Your task to perform on an android device: turn vacation reply on in the gmail app Image 0: 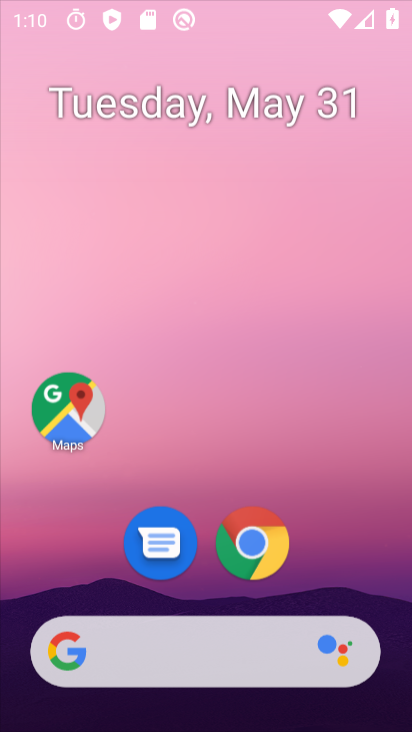
Step 0: press back button
Your task to perform on an android device: turn vacation reply on in the gmail app Image 1: 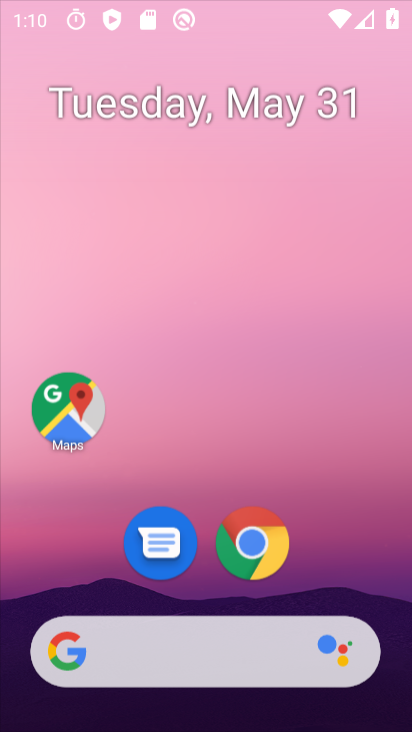
Step 1: click (66, 405)
Your task to perform on an android device: turn vacation reply on in the gmail app Image 2: 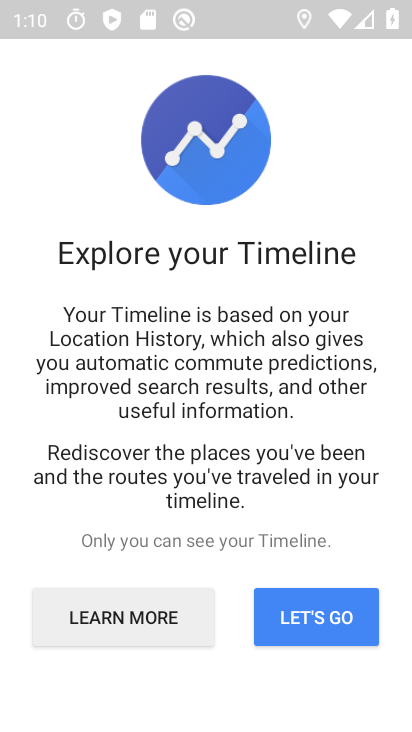
Step 2: press back button
Your task to perform on an android device: turn vacation reply on in the gmail app Image 3: 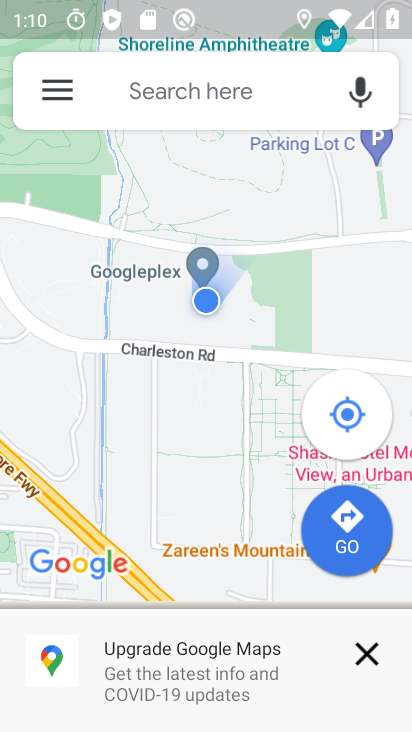
Step 3: press back button
Your task to perform on an android device: turn vacation reply on in the gmail app Image 4: 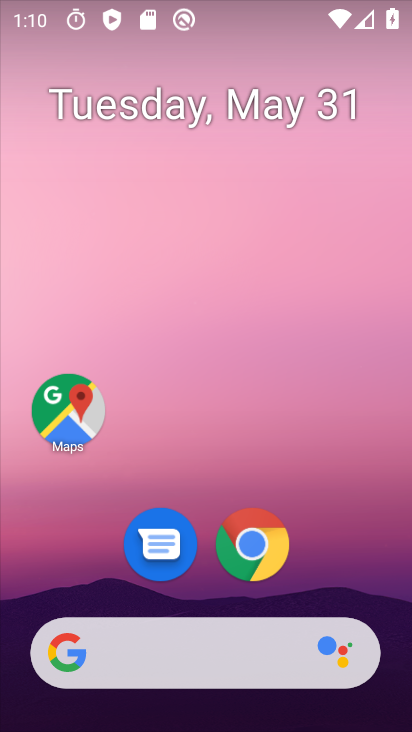
Step 4: drag from (278, 443) to (273, 43)
Your task to perform on an android device: turn vacation reply on in the gmail app Image 5: 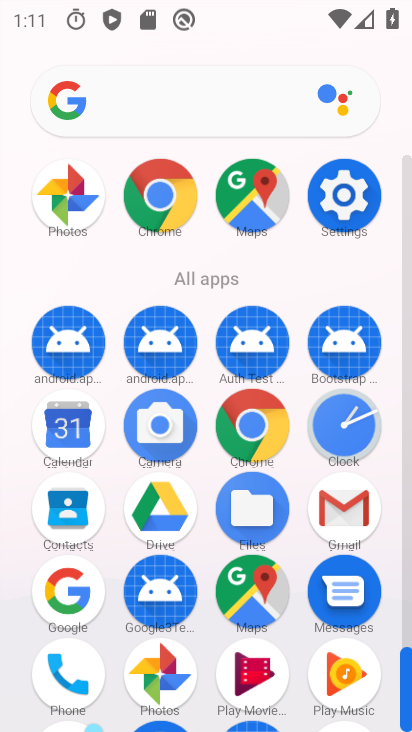
Step 5: click (335, 506)
Your task to perform on an android device: turn vacation reply on in the gmail app Image 6: 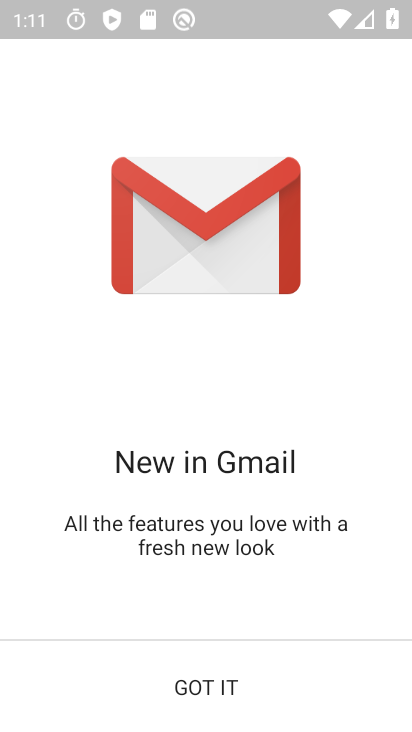
Step 6: click (181, 670)
Your task to perform on an android device: turn vacation reply on in the gmail app Image 7: 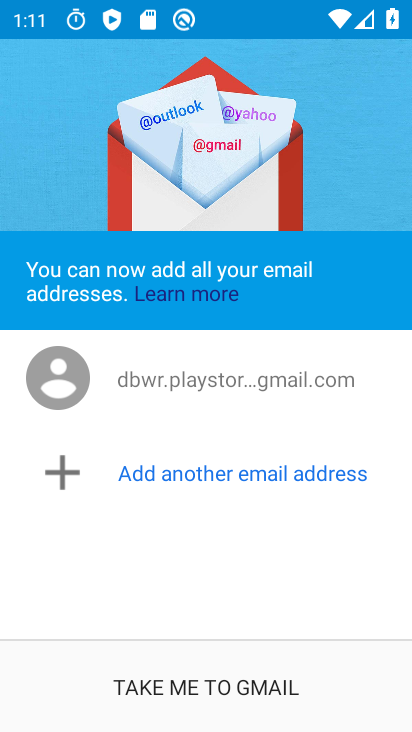
Step 7: click (215, 687)
Your task to perform on an android device: turn vacation reply on in the gmail app Image 8: 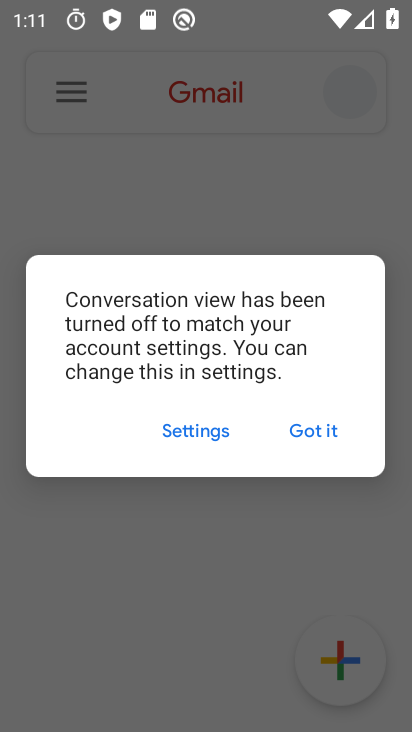
Step 8: click (308, 438)
Your task to perform on an android device: turn vacation reply on in the gmail app Image 9: 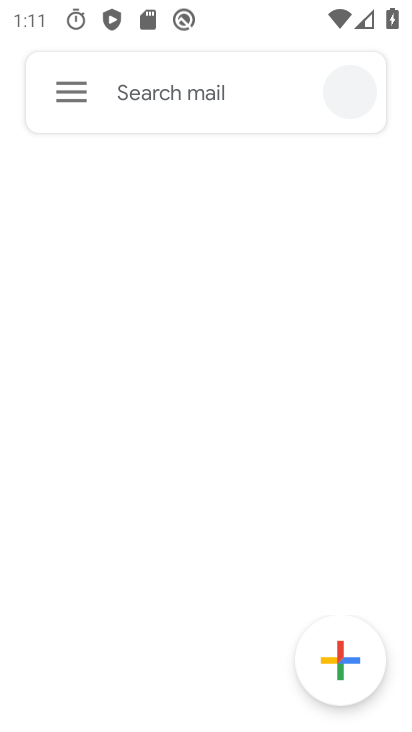
Step 9: click (71, 94)
Your task to perform on an android device: turn vacation reply on in the gmail app Image 10: 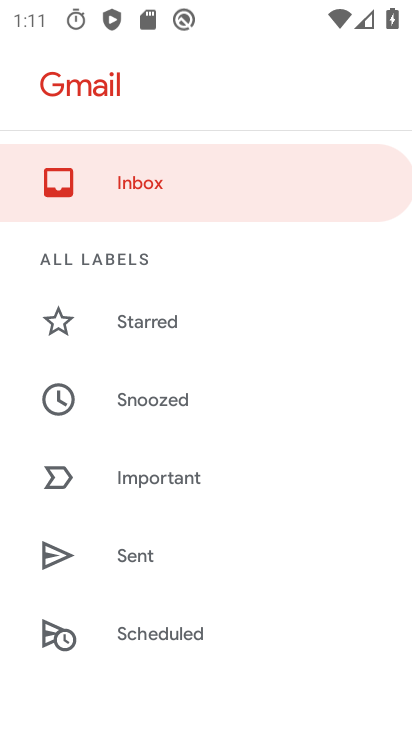
Step 10: drag from (168, 660) to (194, 154)
Your task to perform on an android device: turn vacation reply on in the gmail app Image 11: 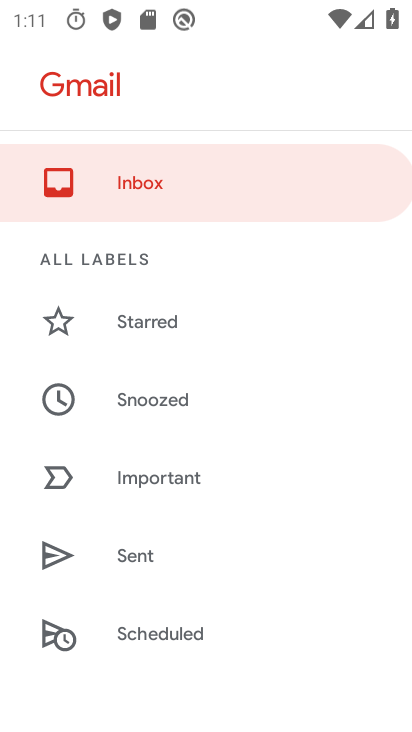
Step 11: drag from (189, 530) to (185, 84)
Your task to perform on an android device: turn vacation reply on in the gmail app Image 12: 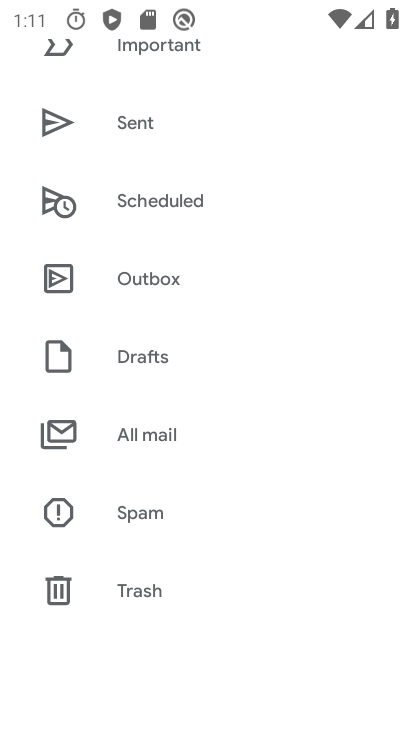
Step 12: drag from (204, 480) to (258, 44)
Your task to perform on an android device: turn vacation reply on in the gmail app Image 13: 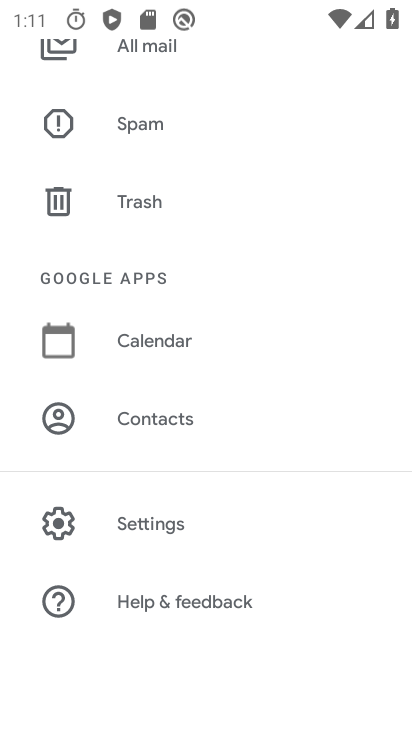
Step 13: click (148, 527)
Your task to perform on an android device: turn vacation reply on in the gmail app Image 14: 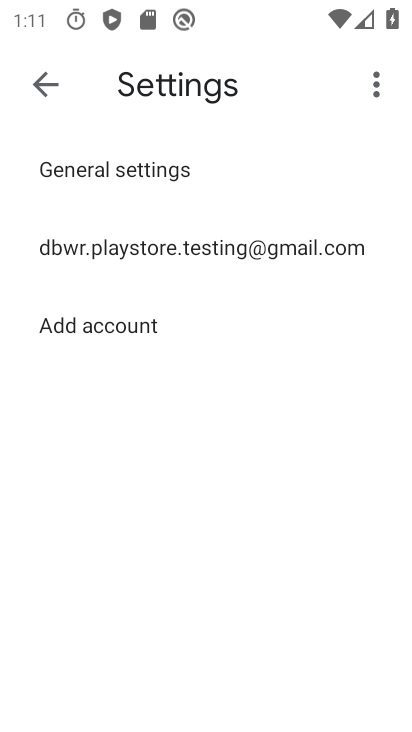
Step 14: click (146, 262)
Your task to perform on an android device: turn vacation reply on in the gmail app Image 15: 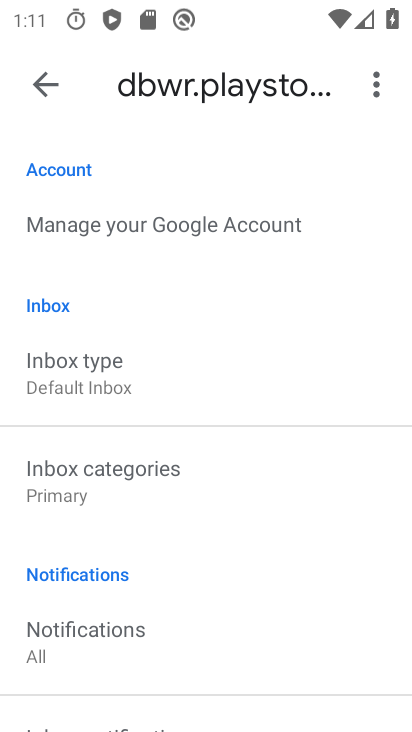
Step 15: task complete